Your task to perform on an android device: Set the phone to "Do not disturb". Image 0: 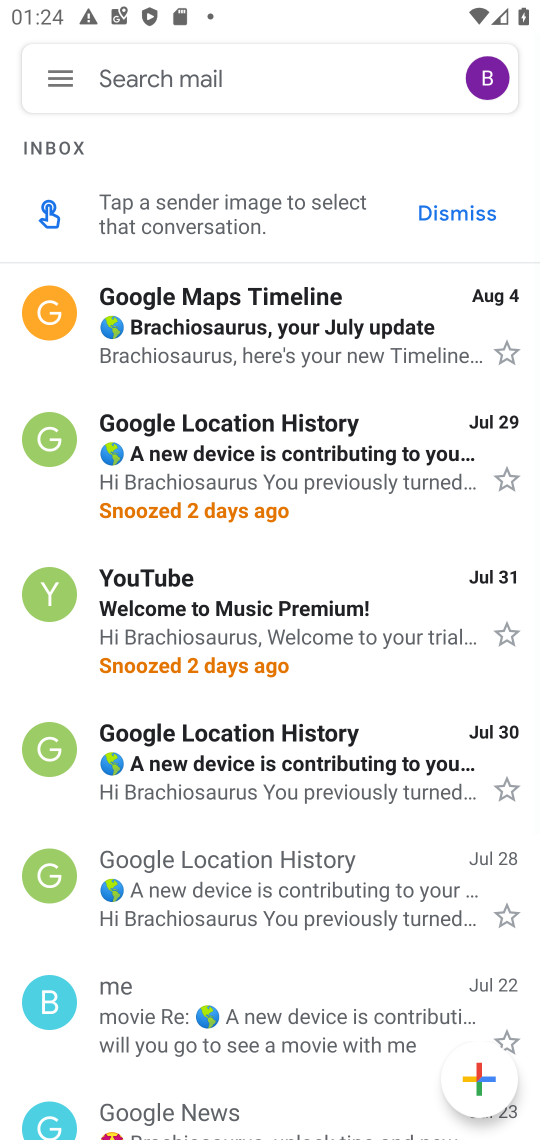
Step 0: press home button
Your task to perform on an android device: Set the phone to "Do not disturb". Image 1: 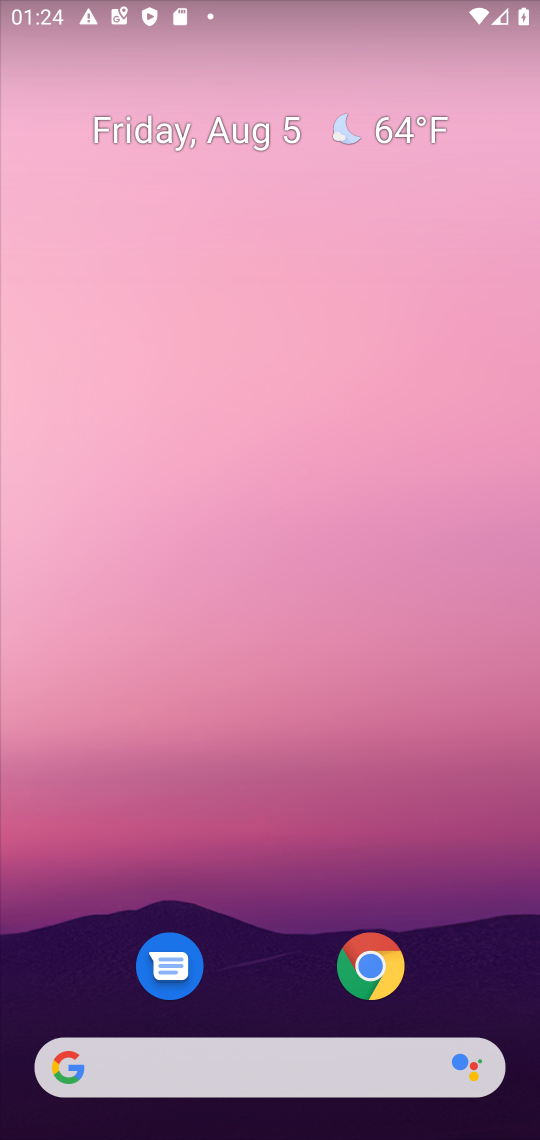
Step 1: drag from (268, 951) to (288, 127)
Your task to perform on an android device: Set the phone to "Do not disturb". Image 2: 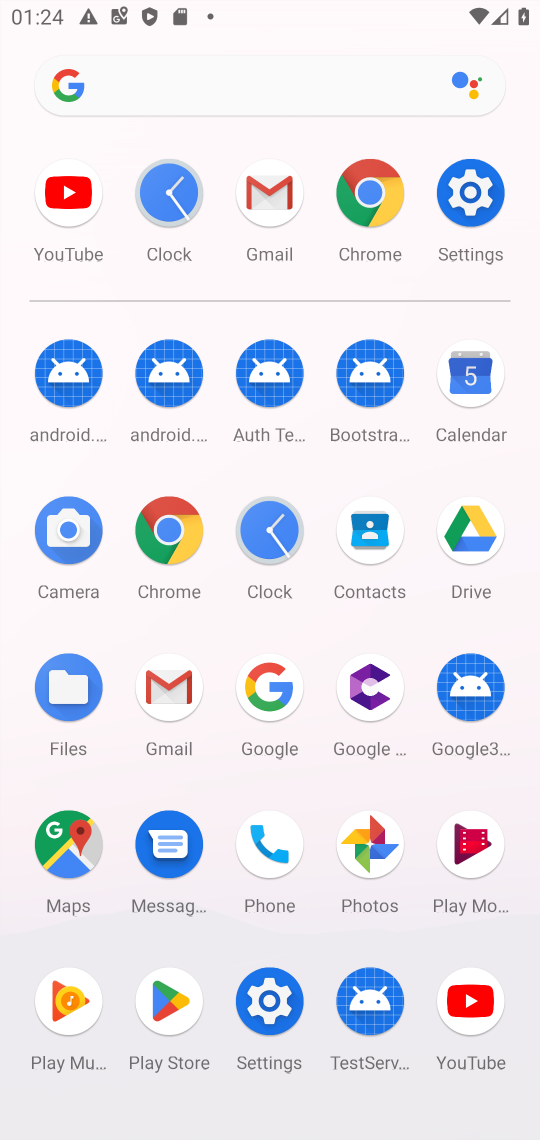
Step 2: click (467, 185)
Your task to perform on an android device: Set the phone to "Do not disturb". Image 3: 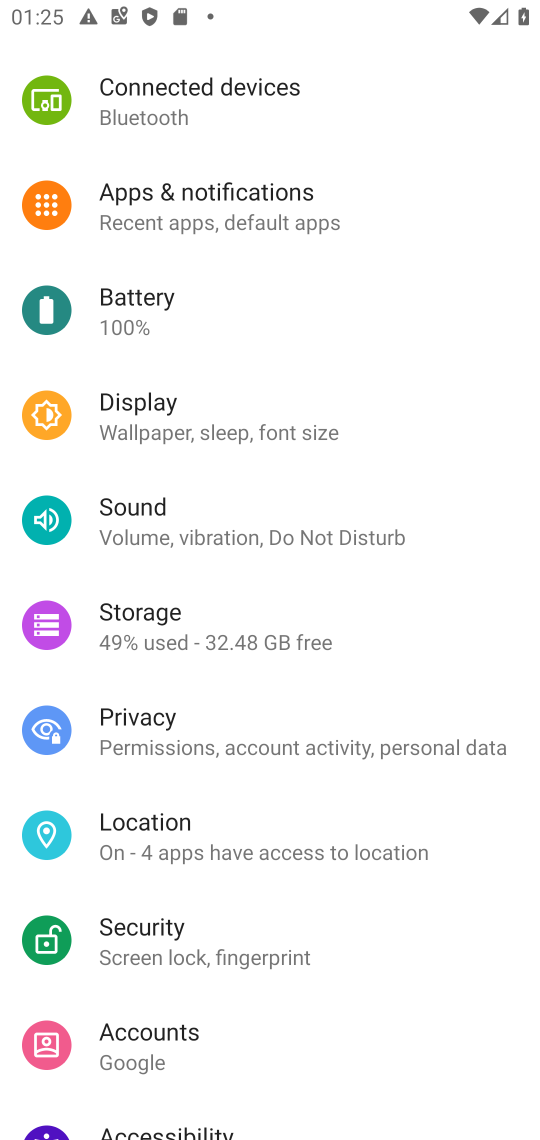
Step 3: click (228, 532)
Your task to perform on an android device: Set the phone to "Do not disturb". Image 4: 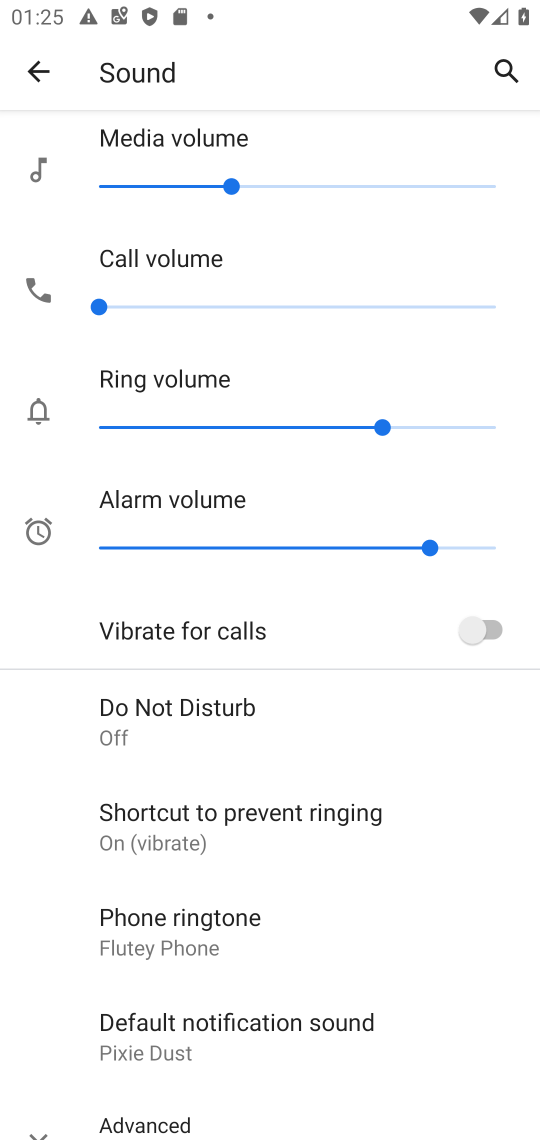
Step 4: drag from (315, 382) to (301, 724)
Your task to perform on an android device: Set the phone to "Do not disturb". Image 5: 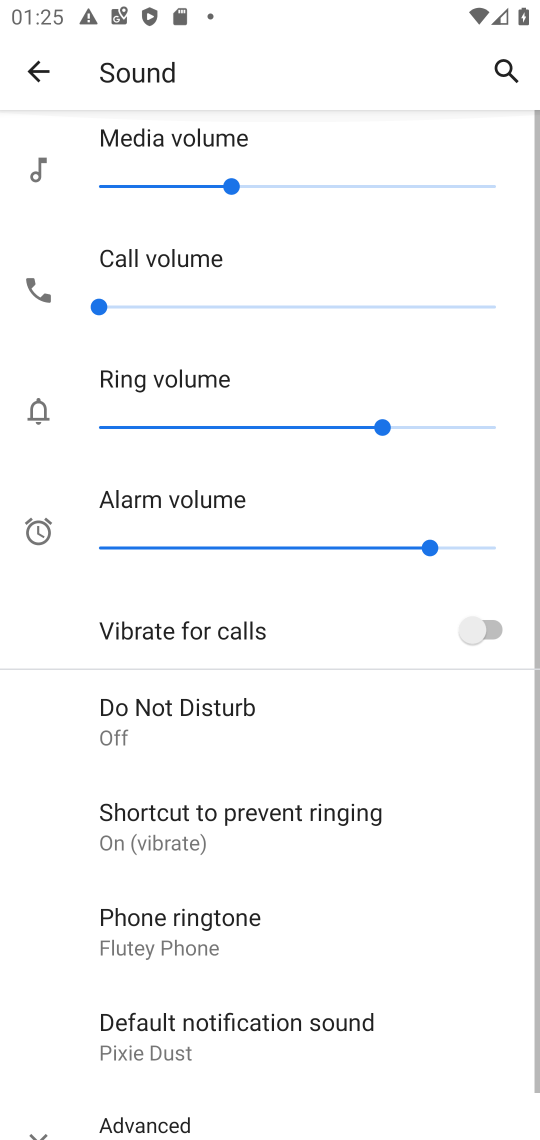
Step 5: drag from (310, 529) to (352, 174)
Your task to perform on an android device: Set the phone to "Do not disturb". Image 6: 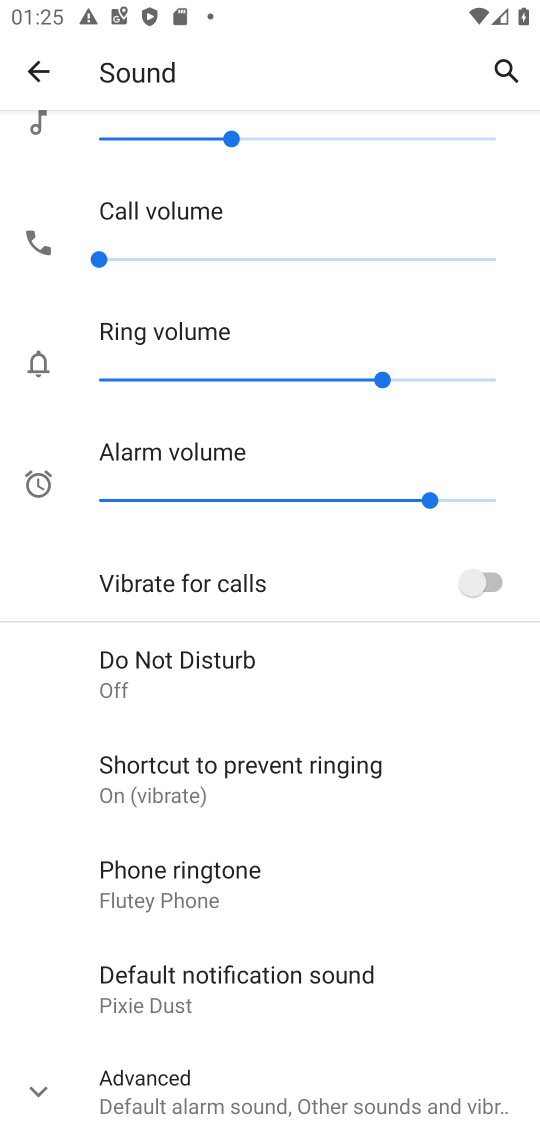
Step 6: click (206, 641)
Your task to perform on an android device: Set the phone to "Do not disturb". Image 7: 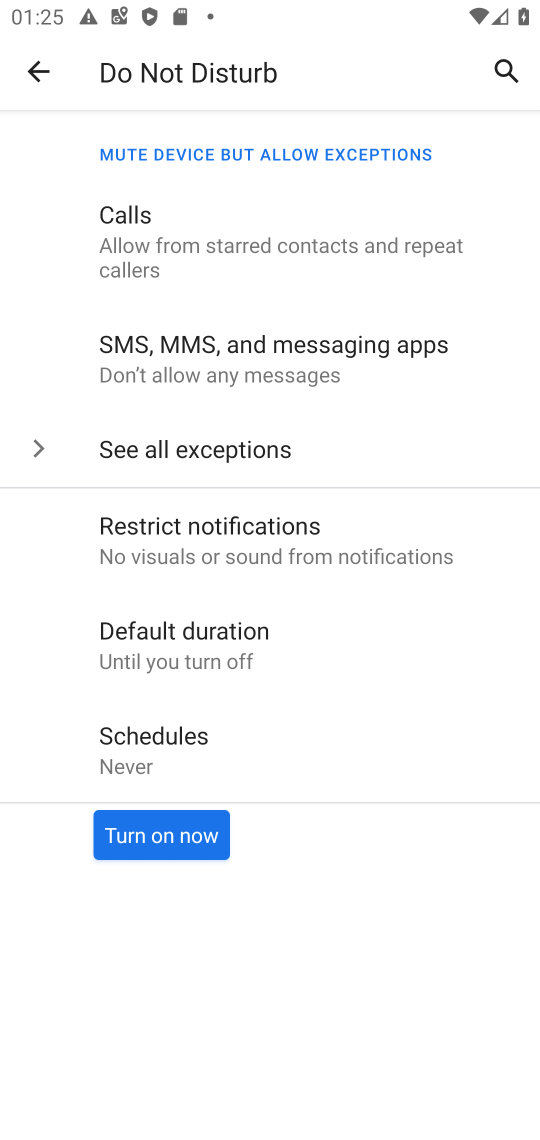
Step 7: click (215, 831)
Your task to perform on an android device: Set the phone to "Do not disturb". Image 8: 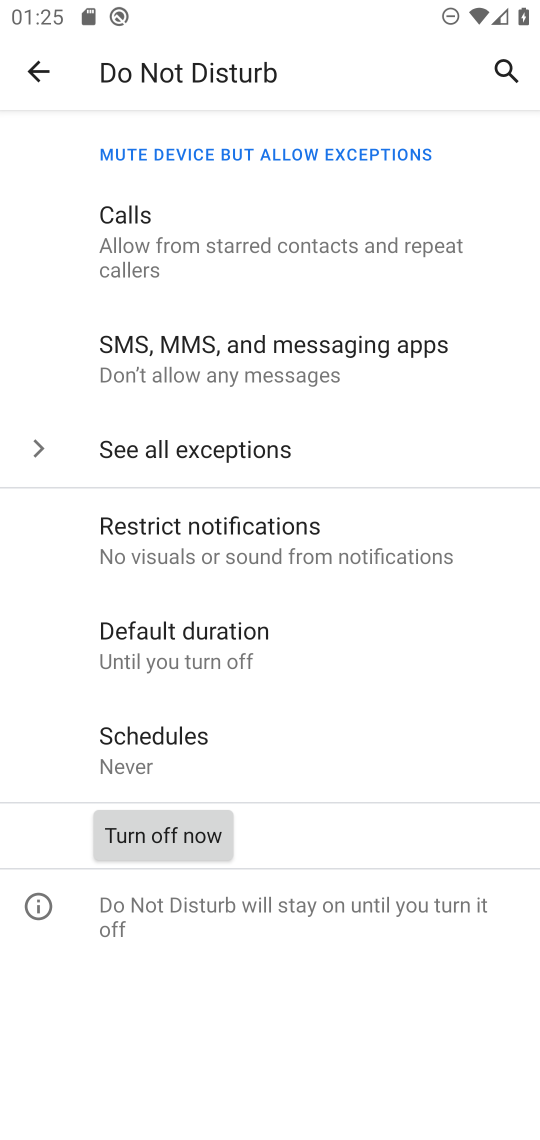
Step 8: click (39, 65)
Your task to perform on an android device: Set the phone to "Do not disturb". Image 9: 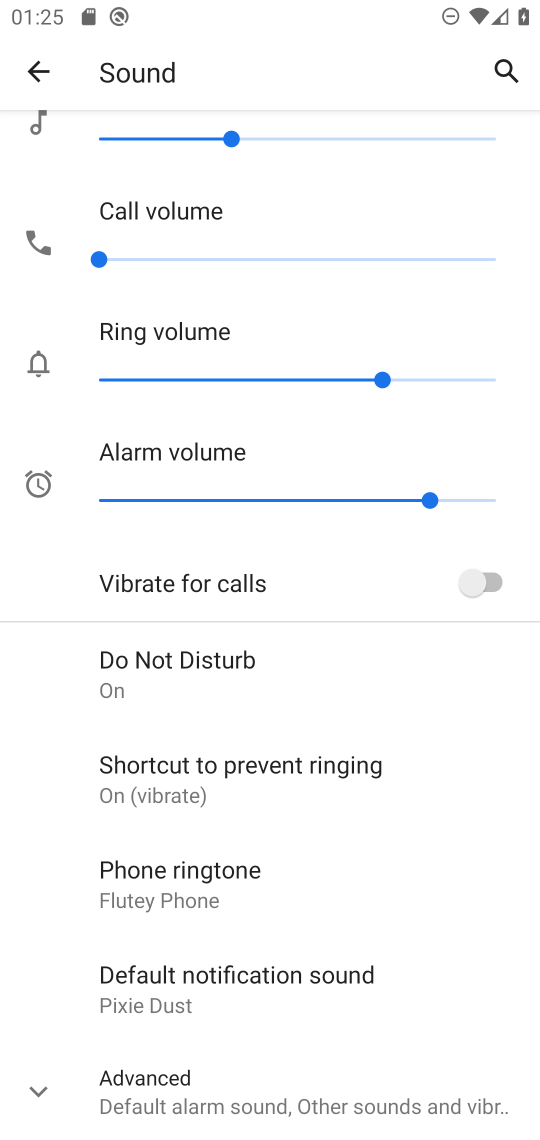
Step 9: task complete